Your task to perform on an android device: Go to Reddit.com Image 0: 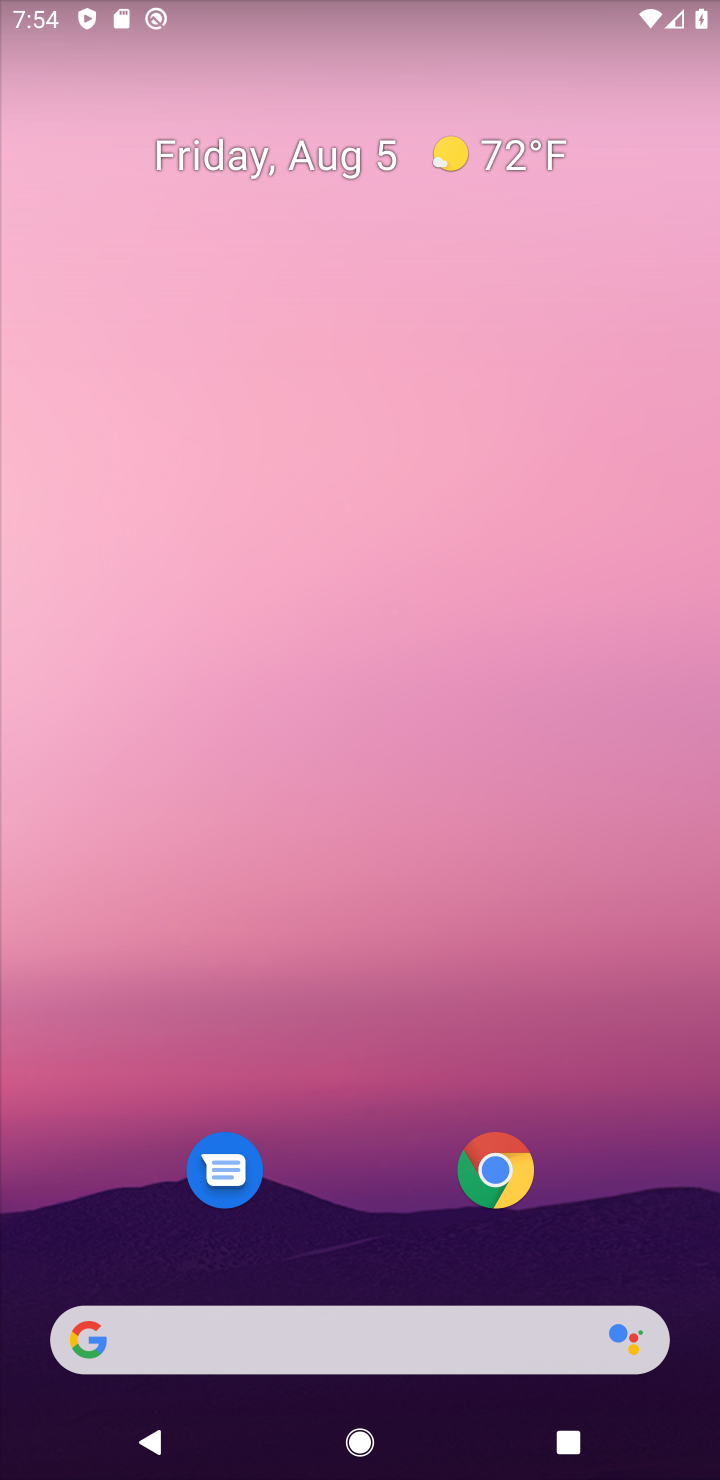
Step 0: click (675, 1259)
Your task to perform on an android device: Go to Reddit.com Image 1: 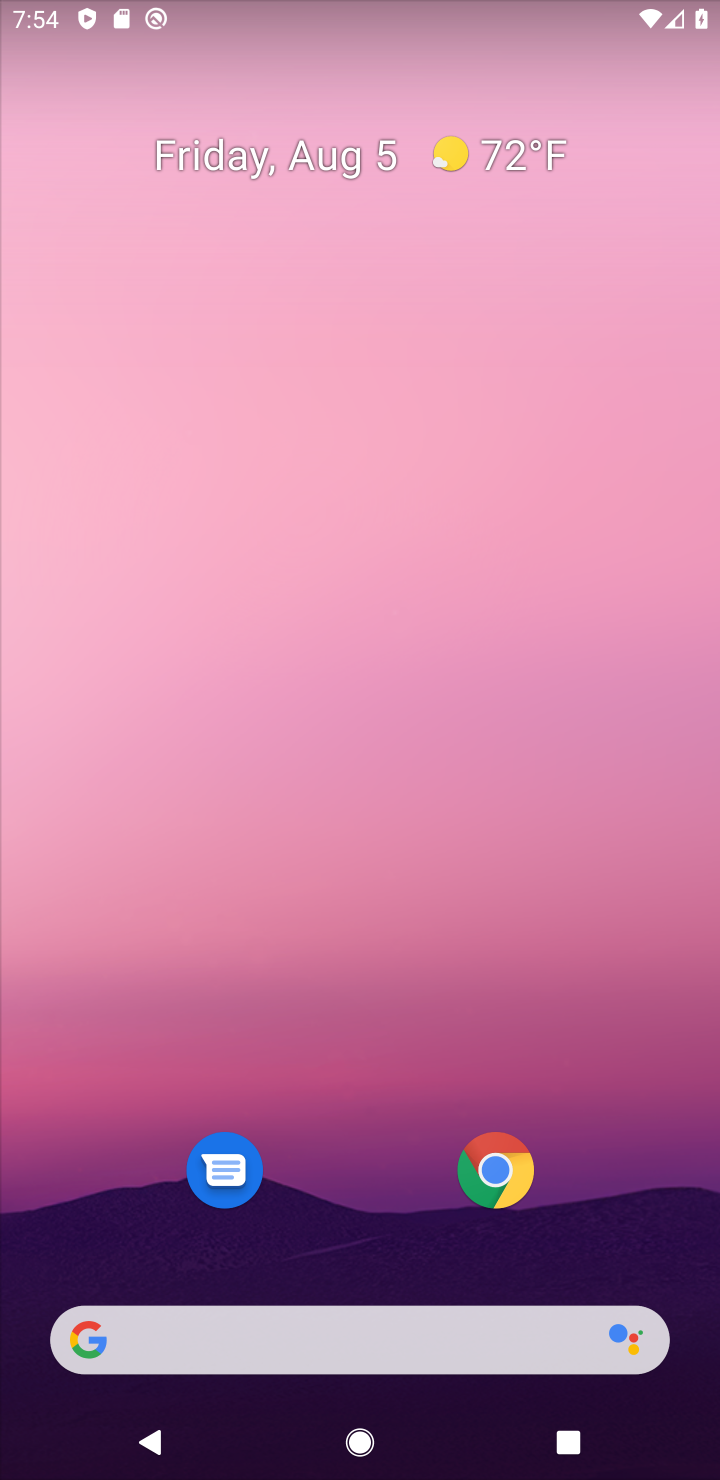
Step 1: click (493, 1172)
Your task to perform on an android device: Go to Reddit.com Image 2: 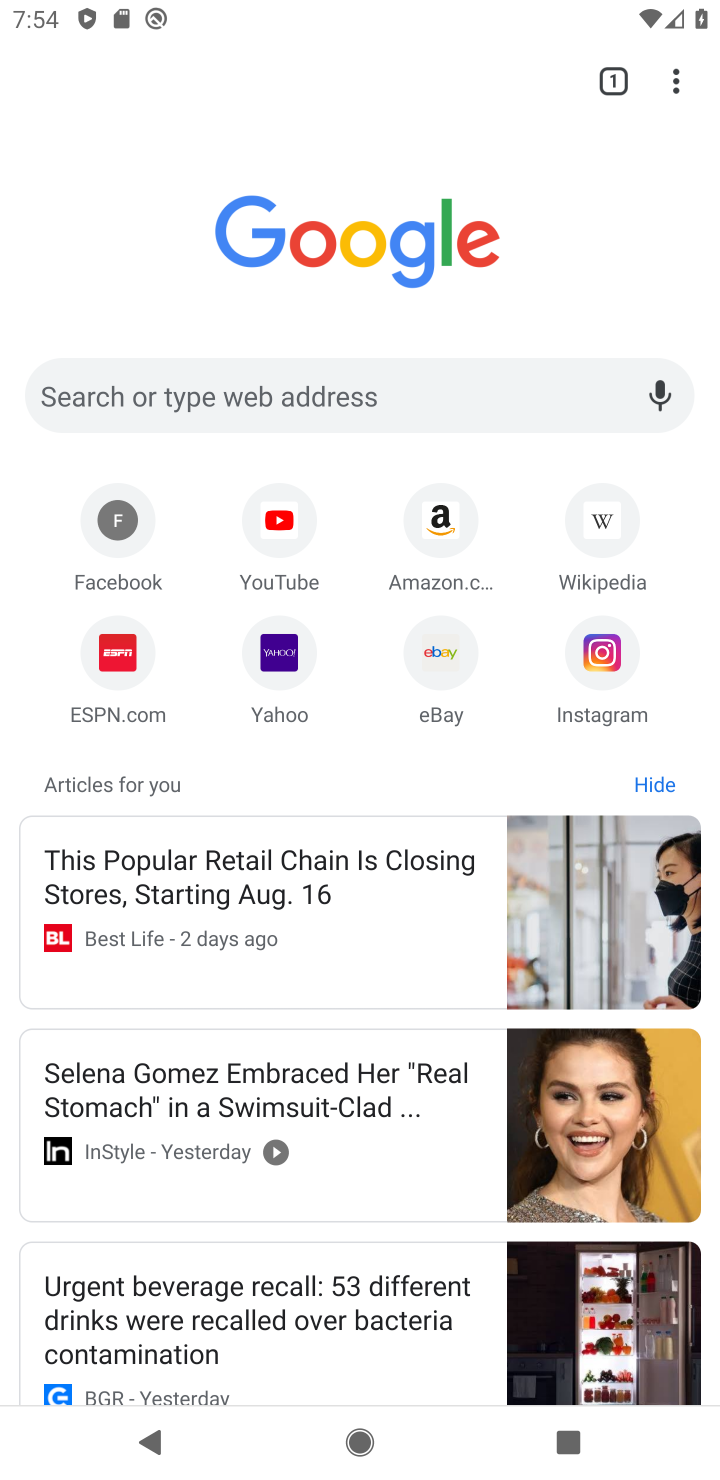
Step 2: click (180, 375)
Your task to perform on an android device: Go to Reddit.com Image 3: 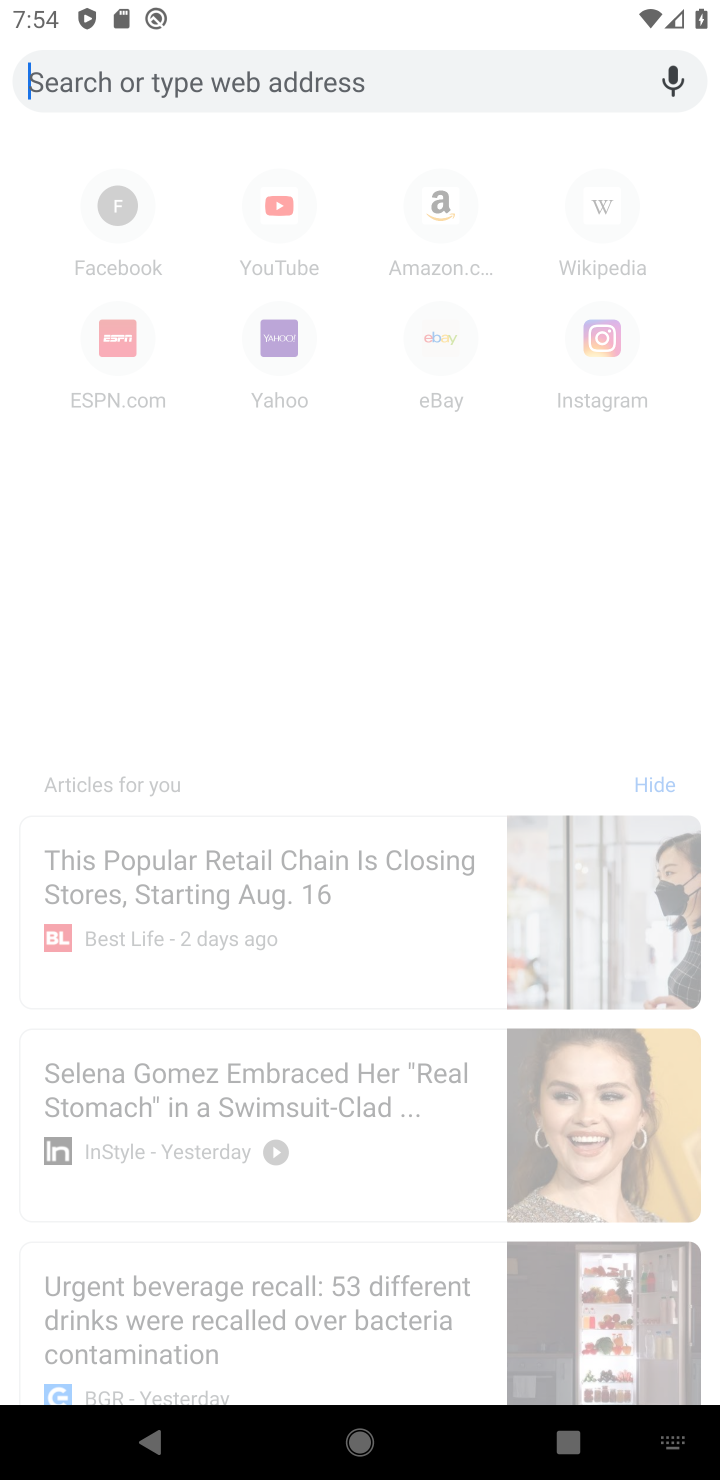
Step 3: type "Reddit.com"
Your task to perform on an android device: Go to Reddit.com Image 4: 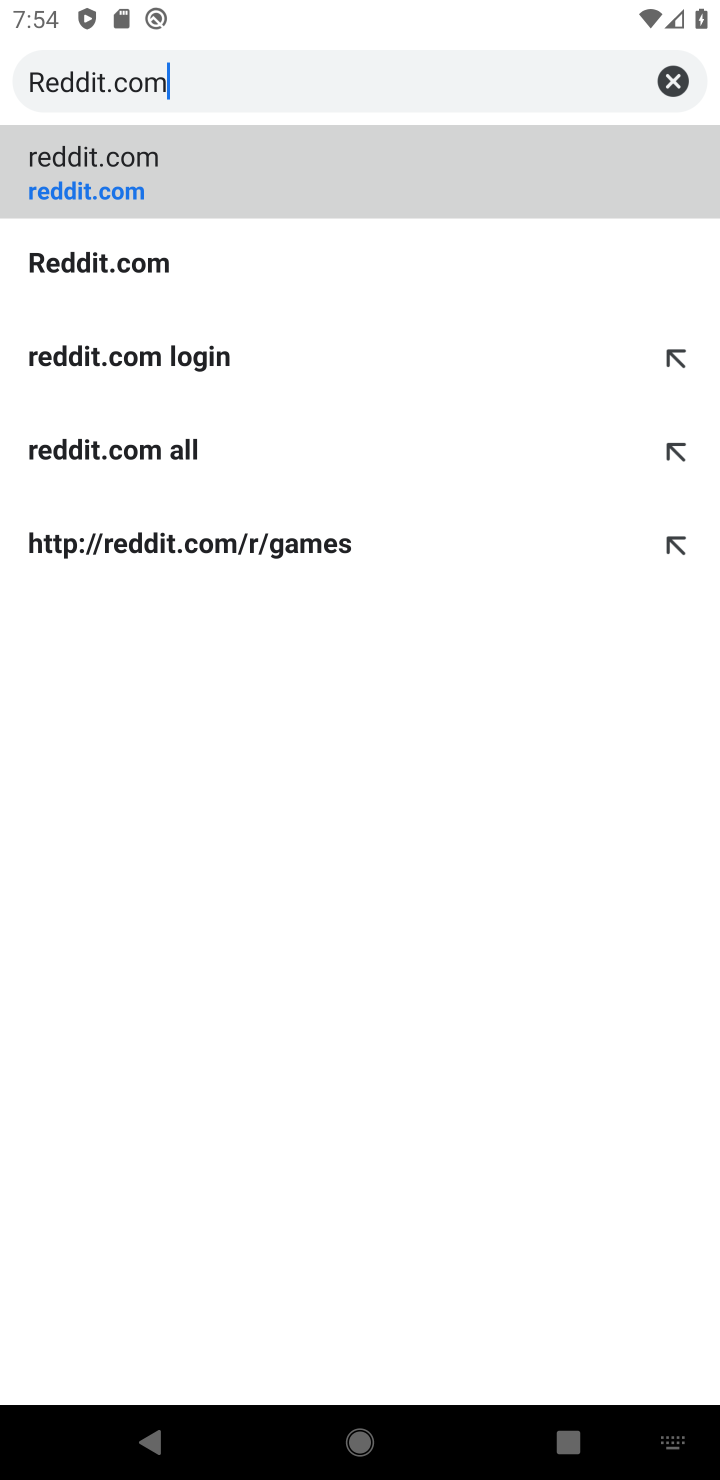
Step 4: click (168, 162)
Your task to perform on an android device: Go to Reddit.com Image 5: 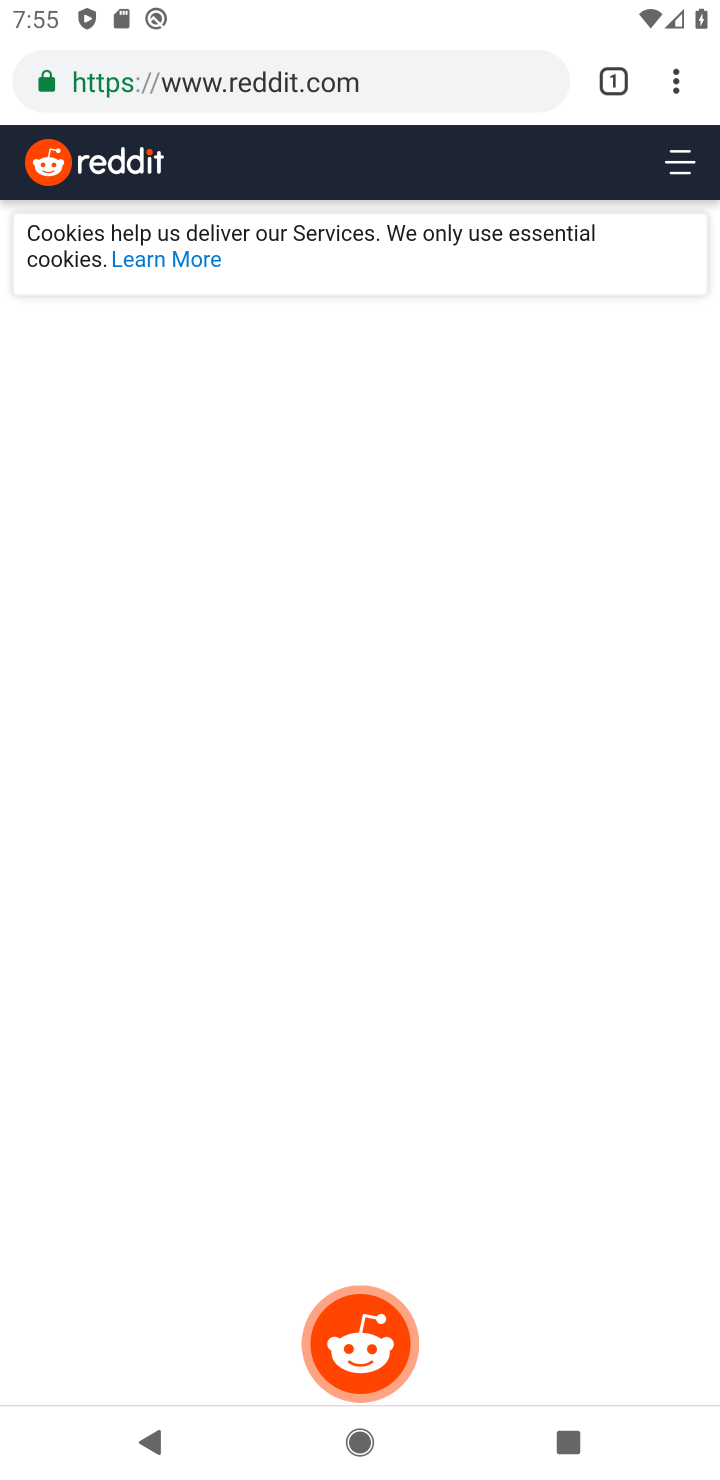
Step 5: task complete